Your task to perform on an android device: open a new tab in the chrome app Image 0: 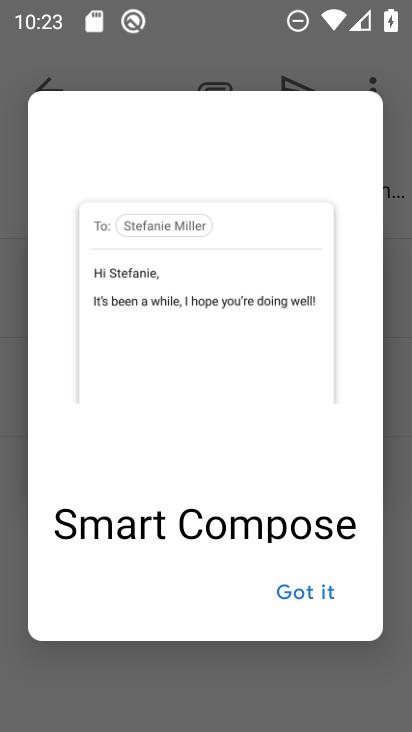
Step 0: press home button
Your task to perform on an android device: open a new tab in the chrome app Image 1: 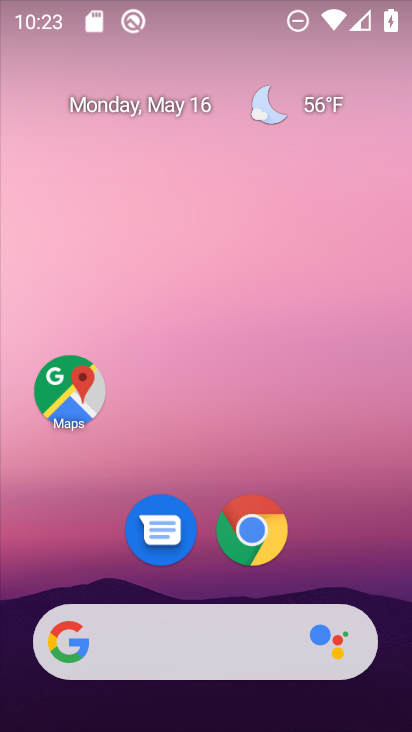
Step 1: drag from (355, 284) to (348, 168)
Your task to perform on an android device: open a new tab in the chrome app Image 2: 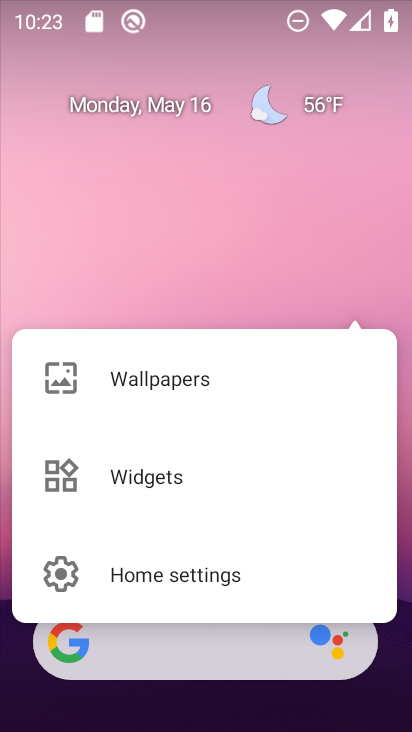
Step 2: click (251, 221)
Your task to perform on an android device: open a new tab in the chrome app Image 3: 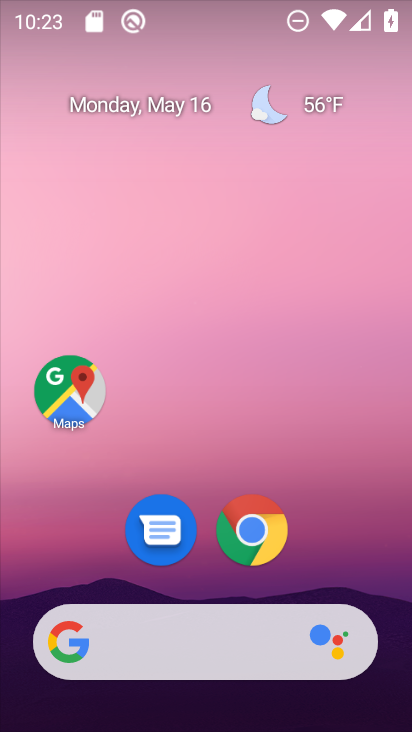
Step 3: drag from (361, 528) to (353, 54)
Your task to perform on an android device: open a new tab in the chrome app Image 4: 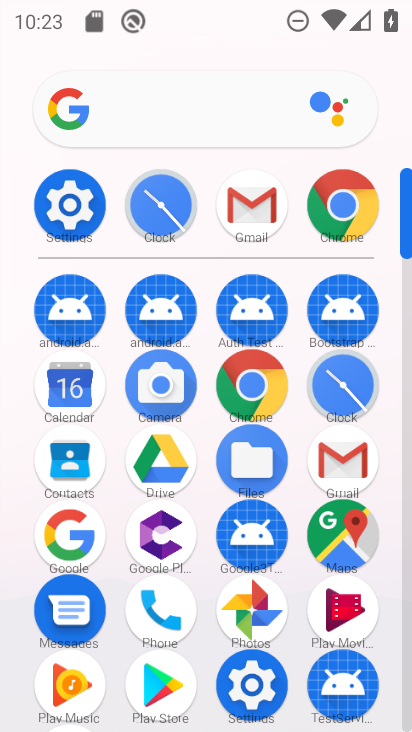
Step 4: click (359, 227)
Your task to perform on an android device: open a new tab in the chrome app Image 5: 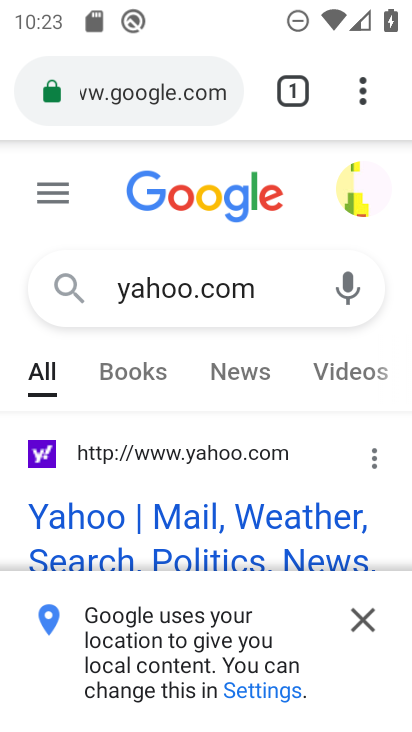
Step 5: click (362, 95)
Your task to perform on an android device: open a new tab in the chrome app Image 6: 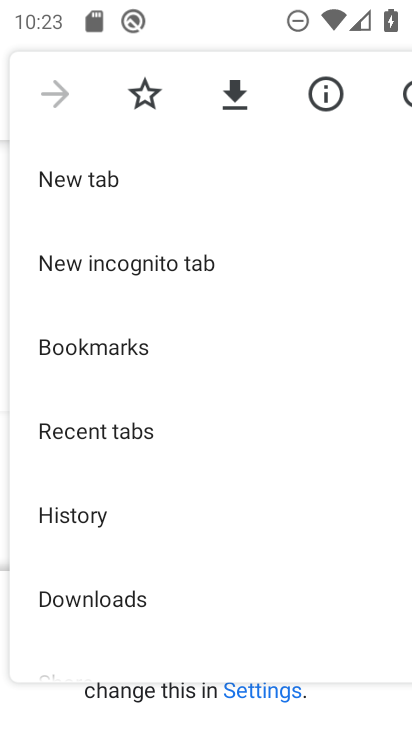
Step 6: click (127, 185)
Your task to perform on an android device: open a new tab in the chrome app Image 7: 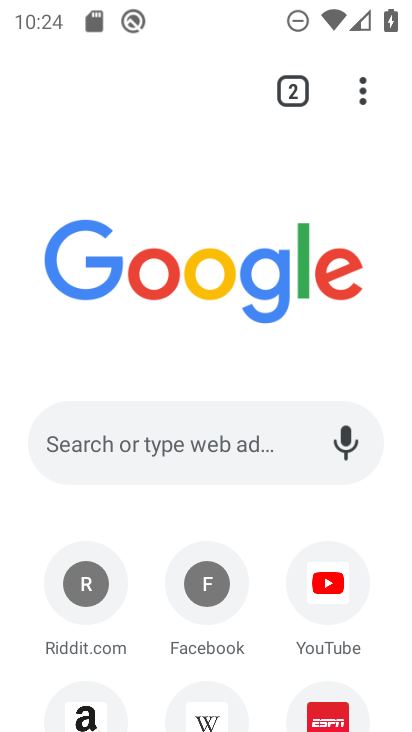
Step 7: task complete